Your task to perform on an android device: Open display settings Image 0: 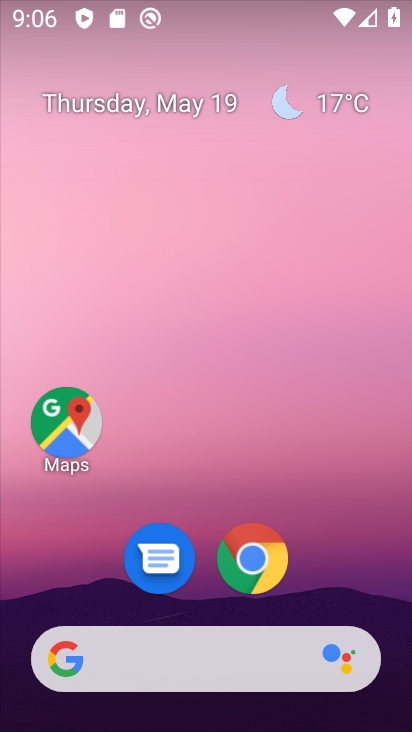
Step 0: drag from (204, 723) to (199, 210)
Your task to perform on an android device: Open display settings Image 1: 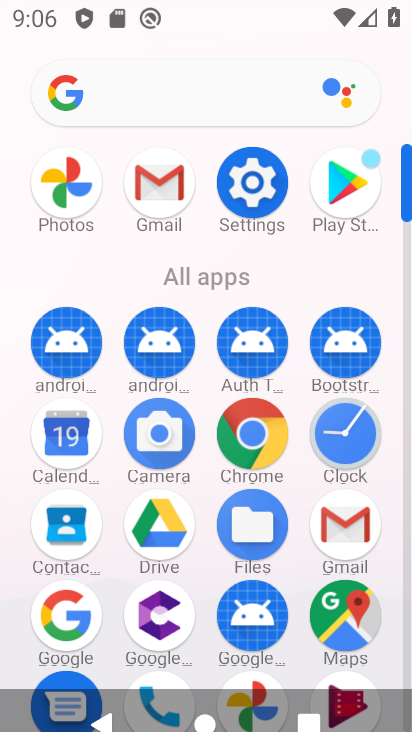
Step 1: click (265, 189)
Your task to perform on an android device: Open display settings Image 2: 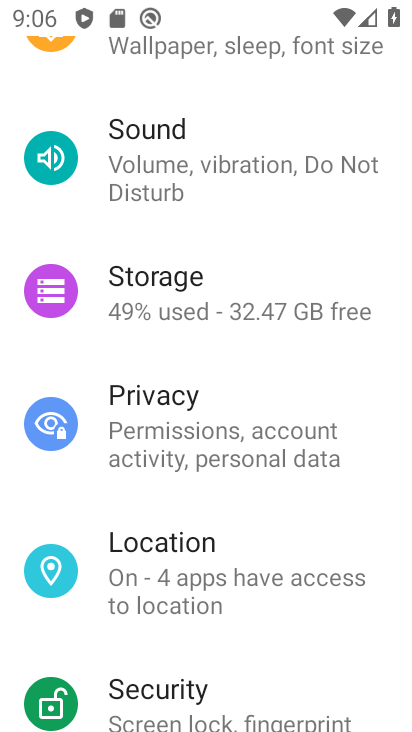
Step 2: drag from (244, 184) to (228, 501)
Your task to perform on an android device: Open display settings Image 3: 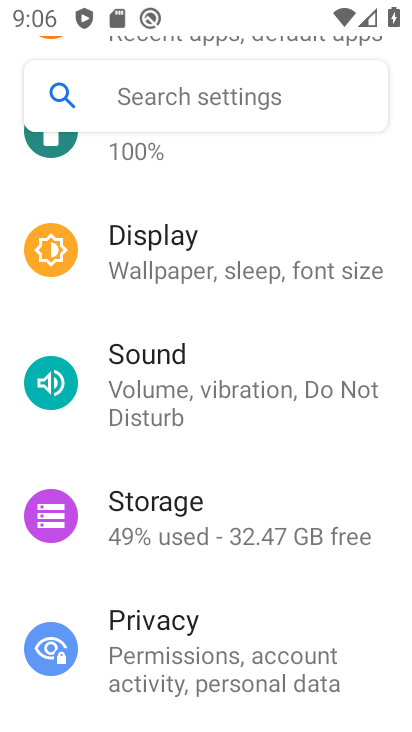
Step 3: click (142, 259)
Your task to perform on an android device: Open display settings Image 4: 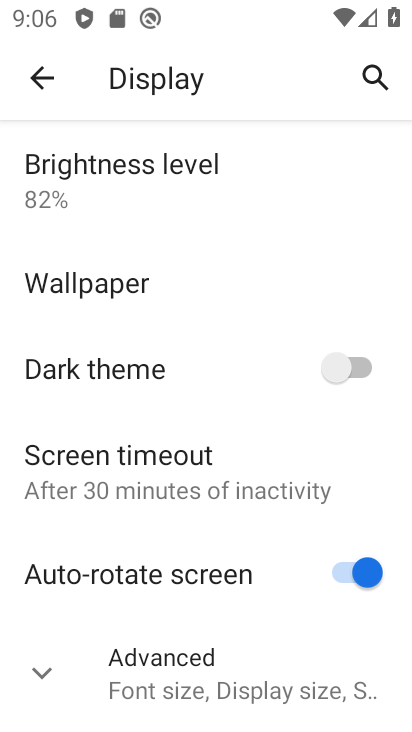
Step 4: task complete